Your task to perform on an android device: Show me popular videos on Youtube Image 0: 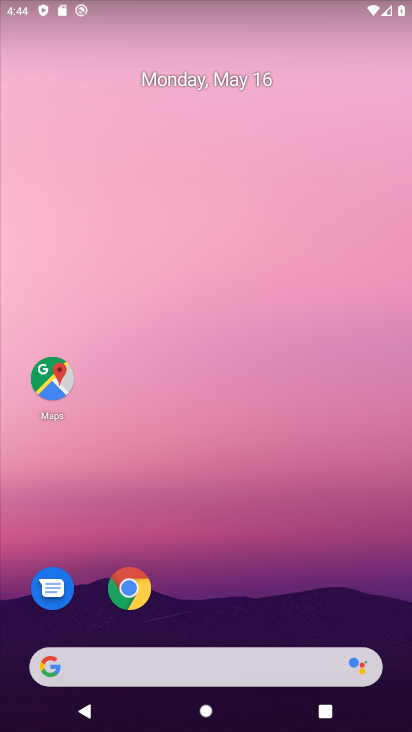
Step 0: drag from (253, 555) to (244, 264)
Your task to perform on an android device: Show me popular videos on Youtube Image 1: 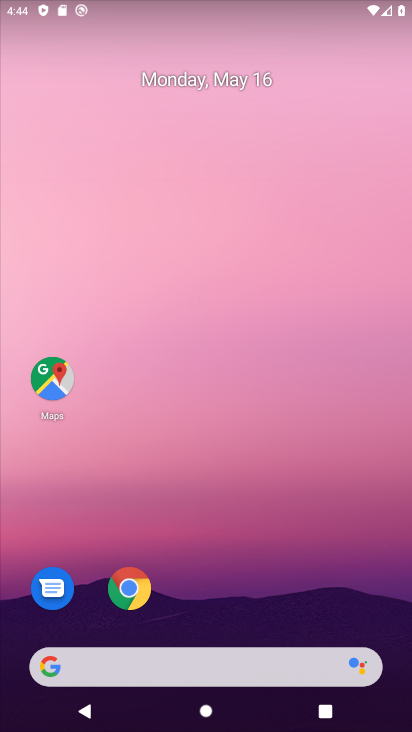
Step 1: drag from (224, 600) to (199, 98)
Your task to perform on an android device: Show me popular videos on Youtube Image 2: 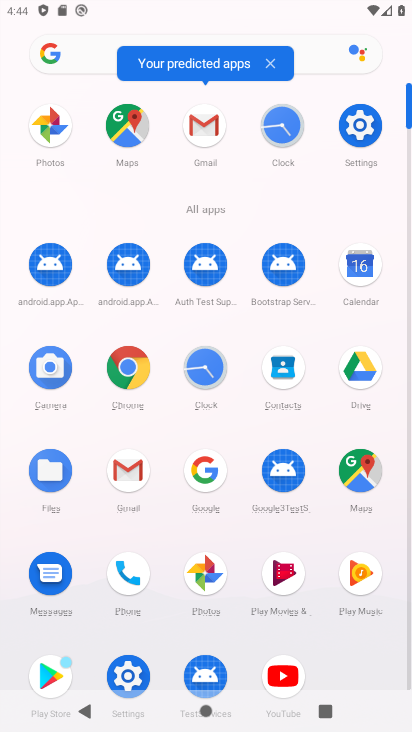
Step 2: click (280, 673)
Your task to perform on an android device: Show me popular videos on Youtube Image 3: 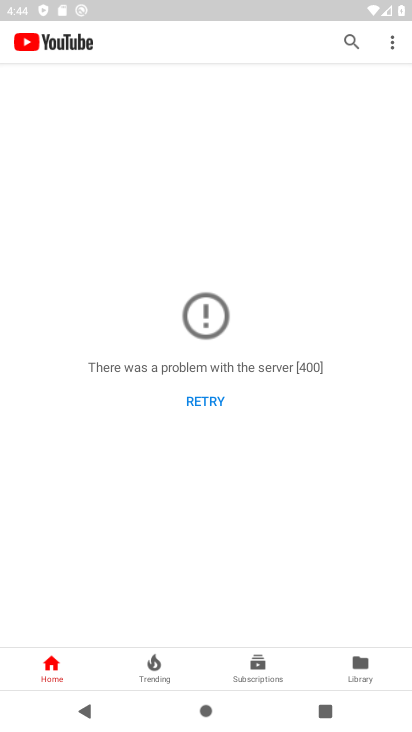
Step 3: task complete